Your task to perform on an android device: turn notification dots on Image 0: 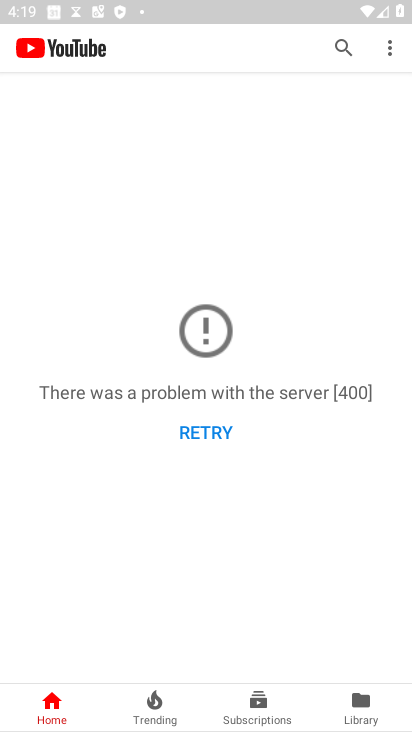
Step 0: press back button
Your task to perform on an android device: turn notification dots on Image 1: 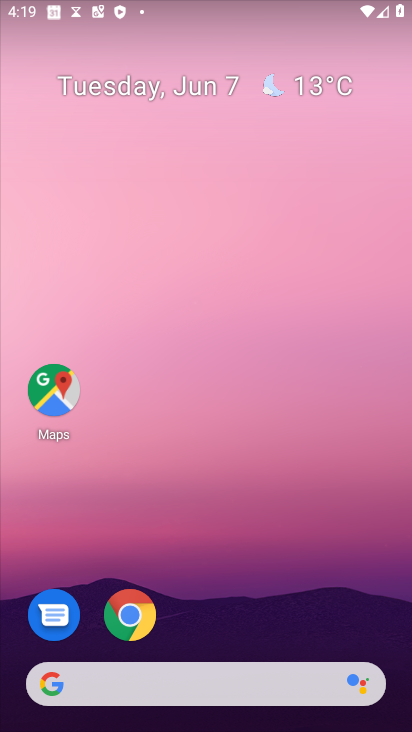
Step 1: drag from (256, 723) to (201, 179)
Your task to perform on an android device: turn notification dots on Image 2: 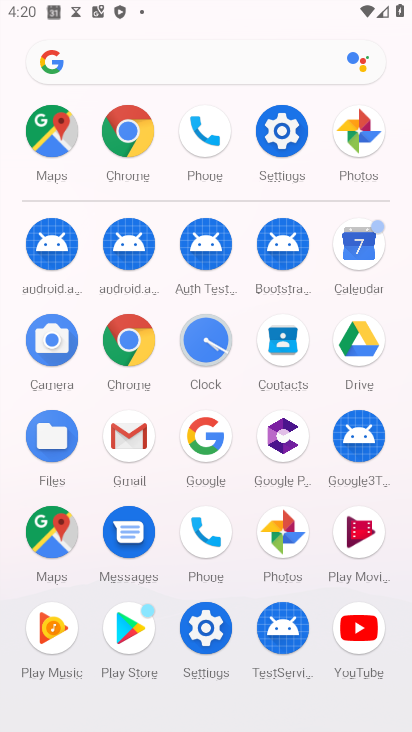
Step 2: click (205, 641)
Your task to perform on an android device: turn notification dots on Image 3: 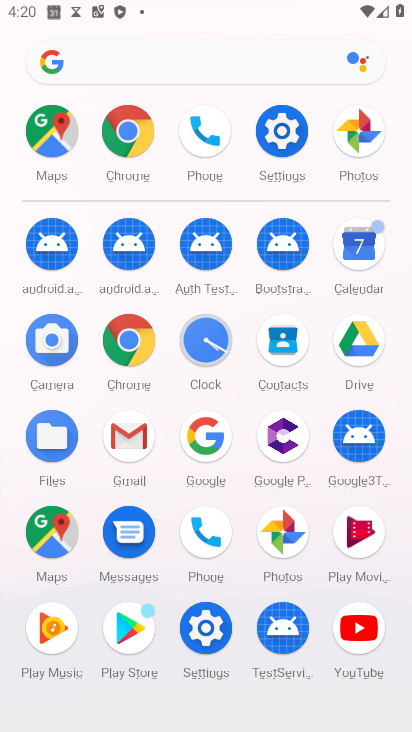
Step 3: click (205, 641)
Your task to perform on an android device: turn notification dots on Image 4: 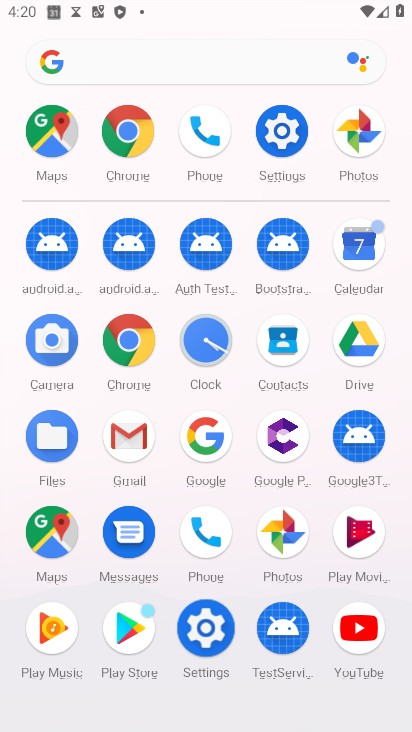
Step 4: click (205, 641)
Your task to perform on an android device: turn notification dots on Image 5: 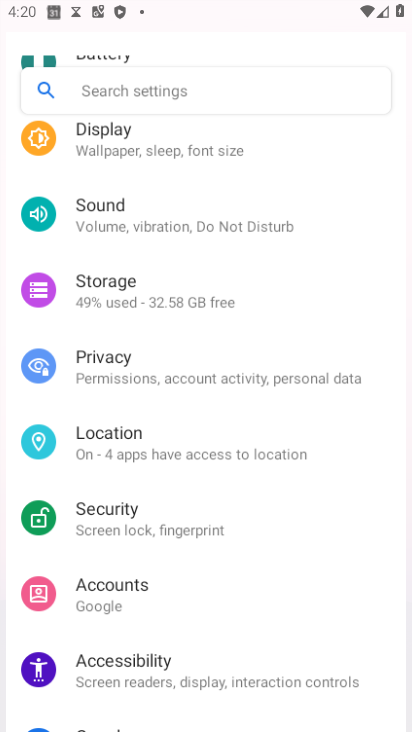
Step 5: click (204, 642)
Your task to perform on an android device: turn notification dots on Image 6: 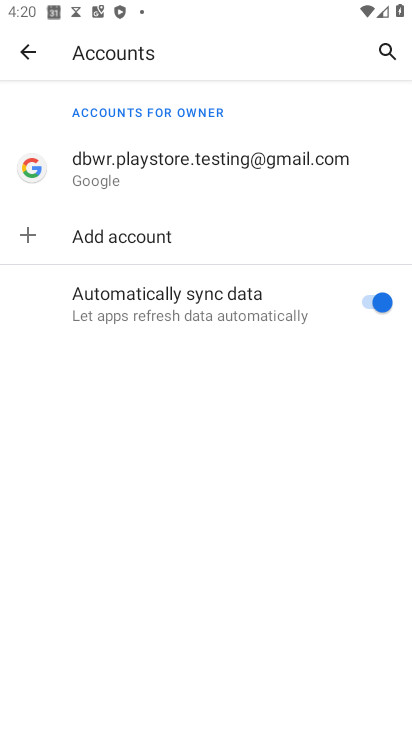
Step 6: click (27, 49)
Your task to perform on an android device: turn notification dots on Image 7: 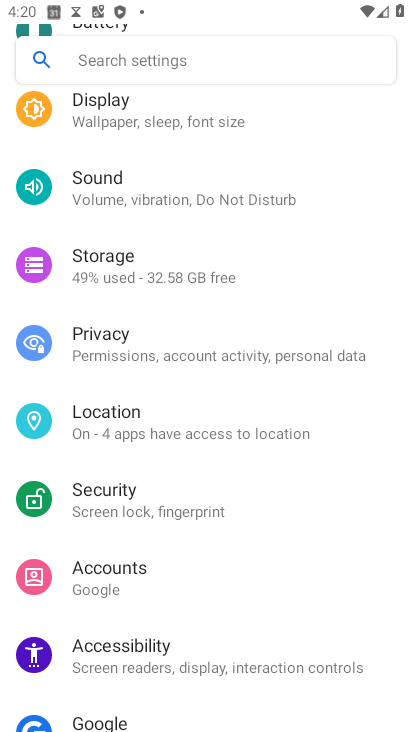
Step 7: drag from (137, 228) to (186, 564)
Your task to perform on an android device: turn notification dots on Image 8: 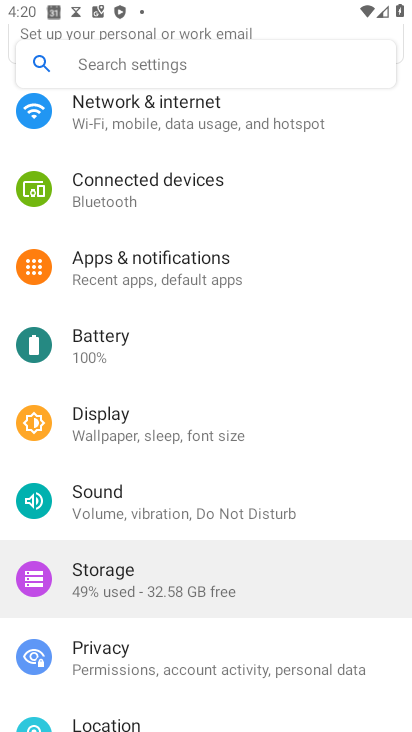
Step 8: drag from (127, 167) to (184, 519)
Your task to perform on an android device: turn notification dots on Image 9: 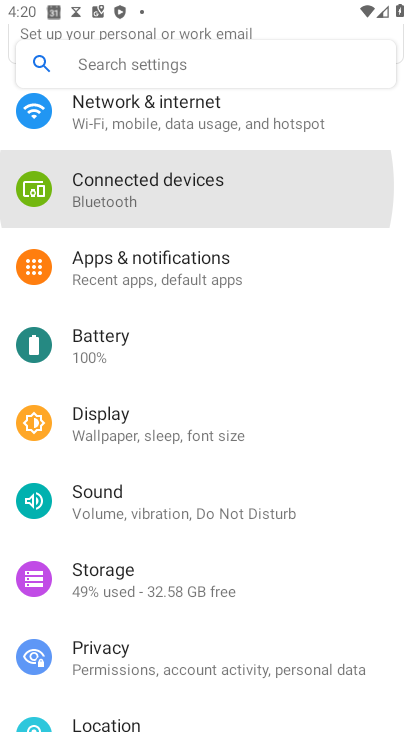
Step 9: drag from (136, 134) to (199, 554)
Your task to perform on an android device: turn notification dots on Image 10: 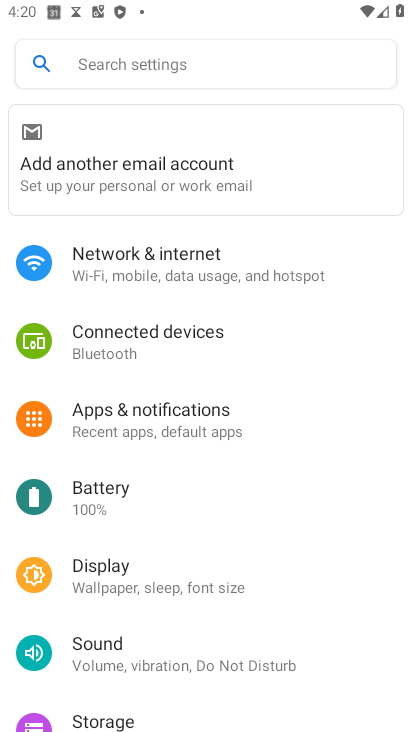
Step 10: click (160, 265)
Your task to perform on an android device: turn notification dots on Image 11: 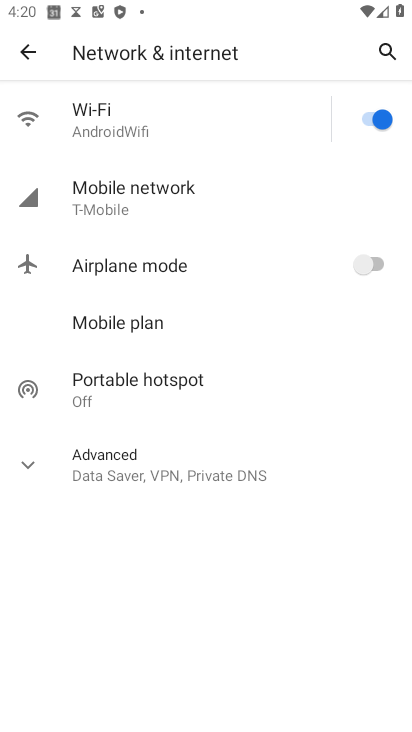
Step 11: click (21, 50)
Your task to perform on an android device: turn notification dots on Image 12: 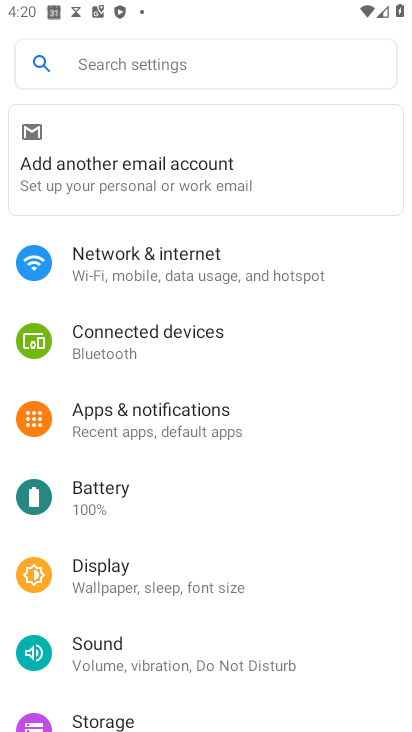
Step 12: click (131, 424)
Your task to perform on an android device: turn notification dots on Image 13: 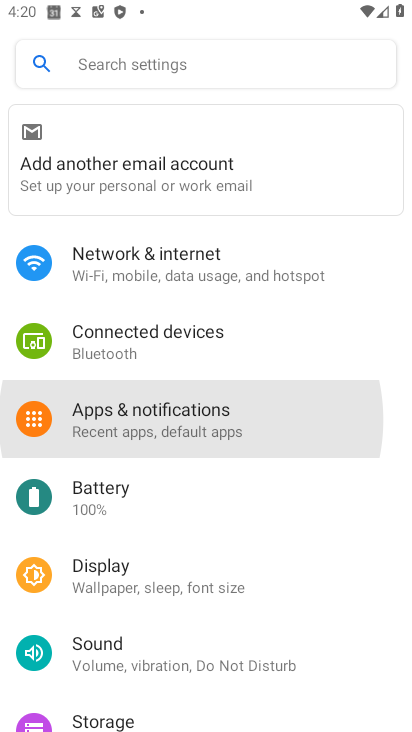
Step 13: click (132, 424)
Your task to perform on an android device: turn notification dots on Image 14: 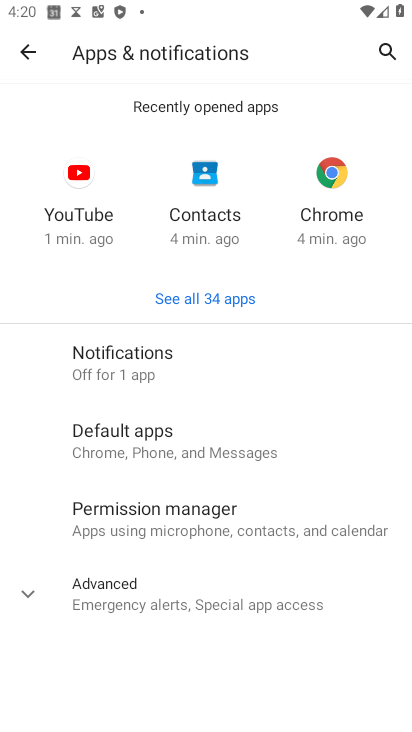
Step 14: click (122, 357)
Your task to perform on an android device: turn notification dots on Image 15: 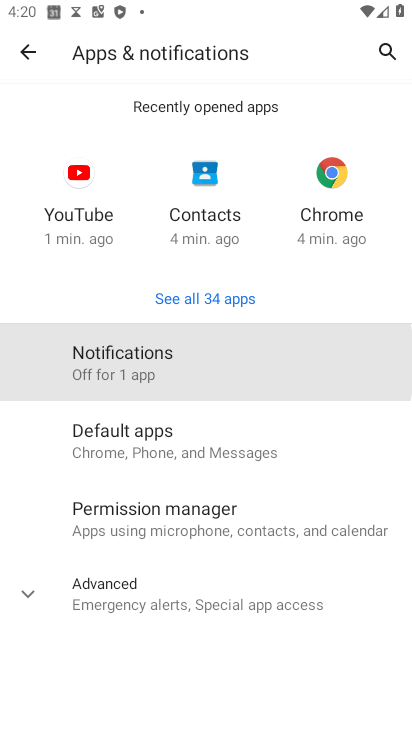
Step 15: click (122, 354)
Your task to perform on an android device: turn notification dots on Image 16: 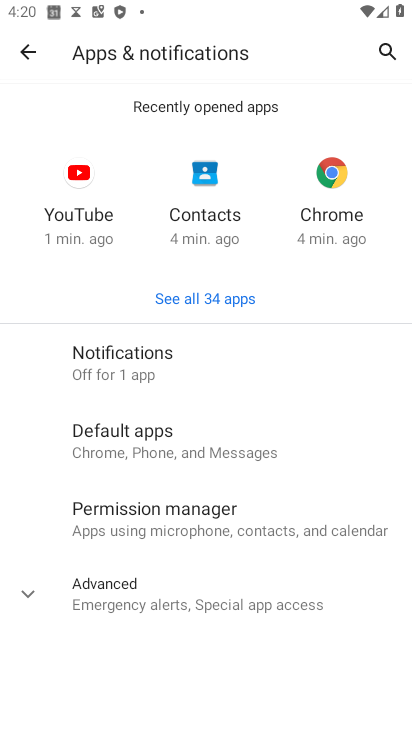
Step 16: click (122, 354)
Your task to perform on an android device: turn notification dots on Image 17: 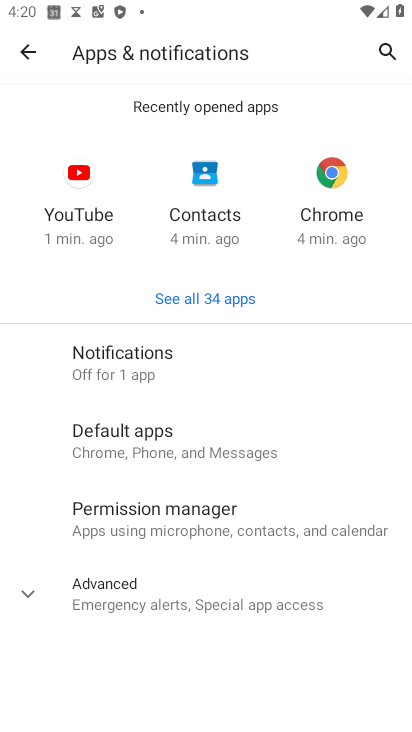
Step 17: click (121, 354)
Your task to perform on an android device: turn notification dots on Image 18: 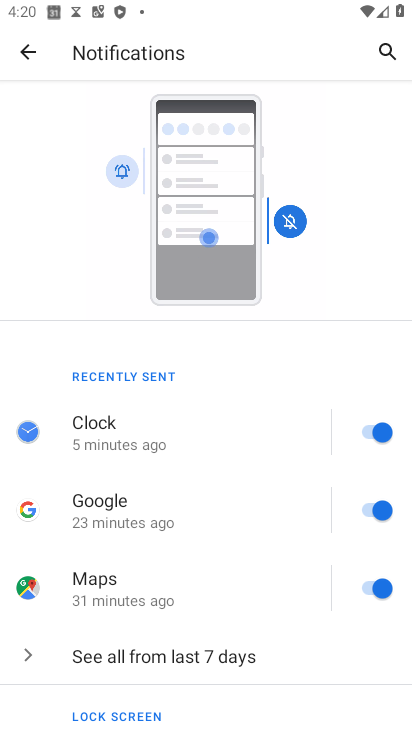
Step 18: drag from (158, 637) to (194, 334)
Your task to perform on an android device: turn notification dots on Image 19: 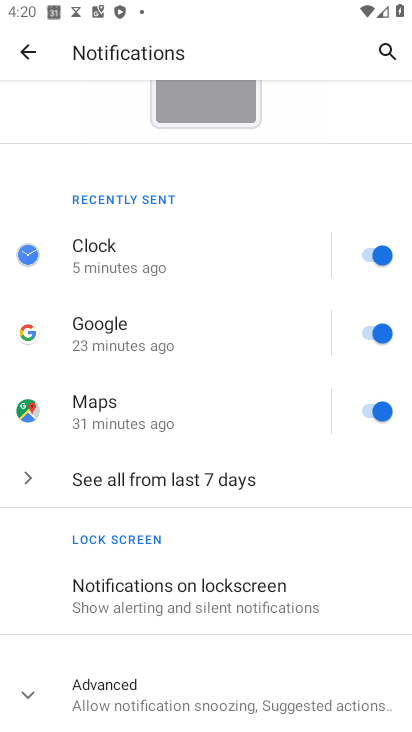
Step 19: drag from (230, 642) to (204, 350)
Your task to perform on an android device: turn notification dots on Image 20: 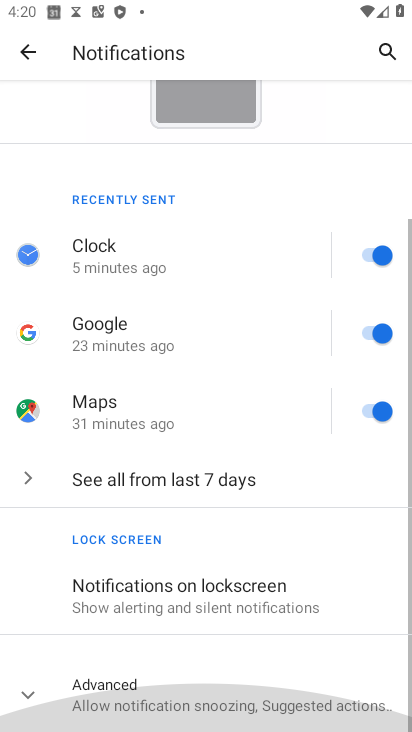
Step 20: drag from (249, 596) to (226, 337)
Your task to perform on an android device: turn notification dots on Image 21: 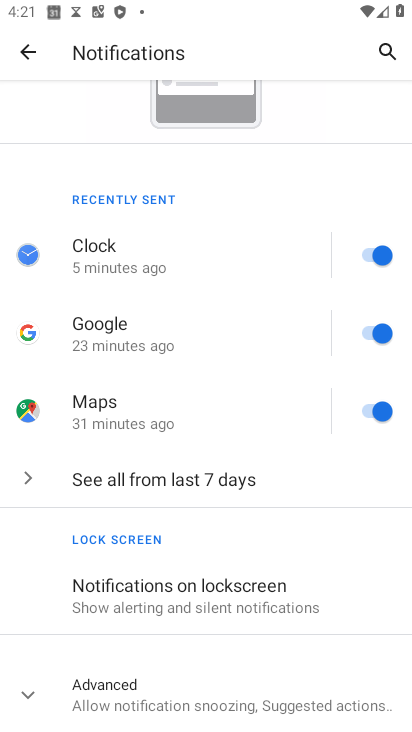
Step 21: click (71, 674)
Your task to perform on an android device: turn notification dots on Image 22: 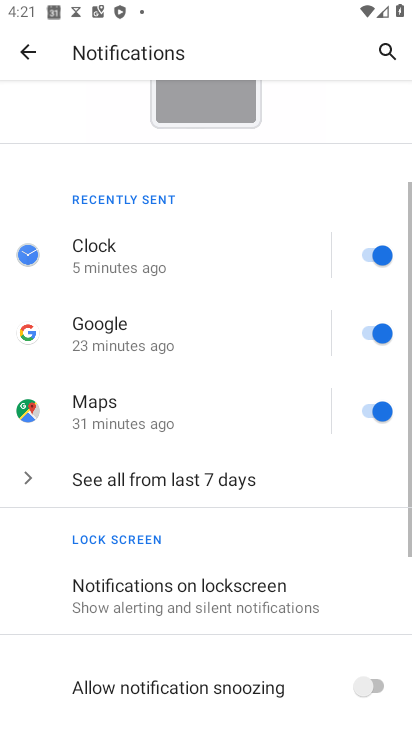
Step 22: task complete